Your task to perform on an android device: Empty the shopping cart on amazon. Image 0: 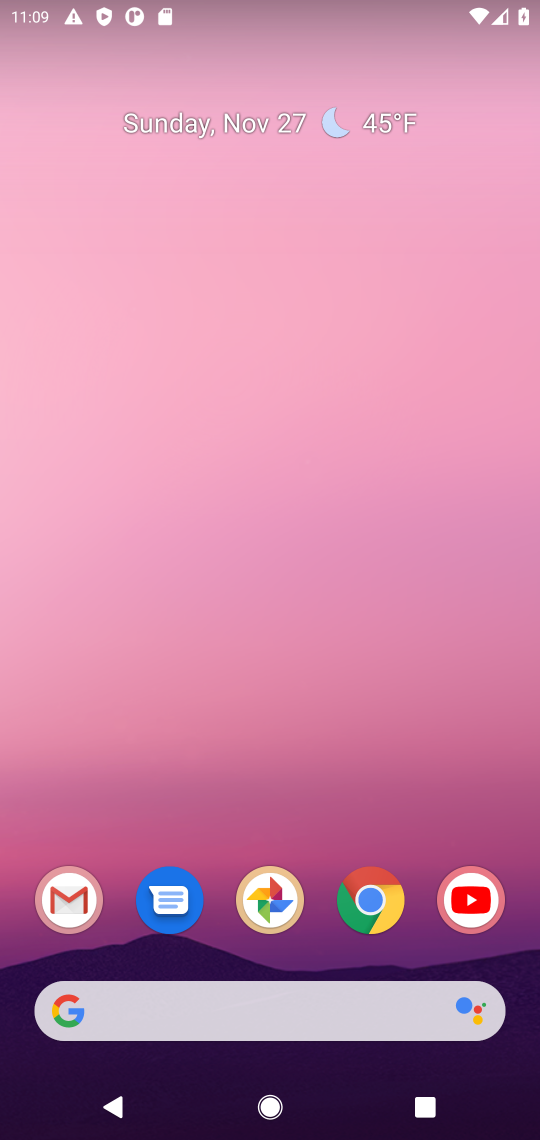
Step 0: click (391, 911)
Your task to perform on an android device: Empty the shopping cart on amazon. Image 1: 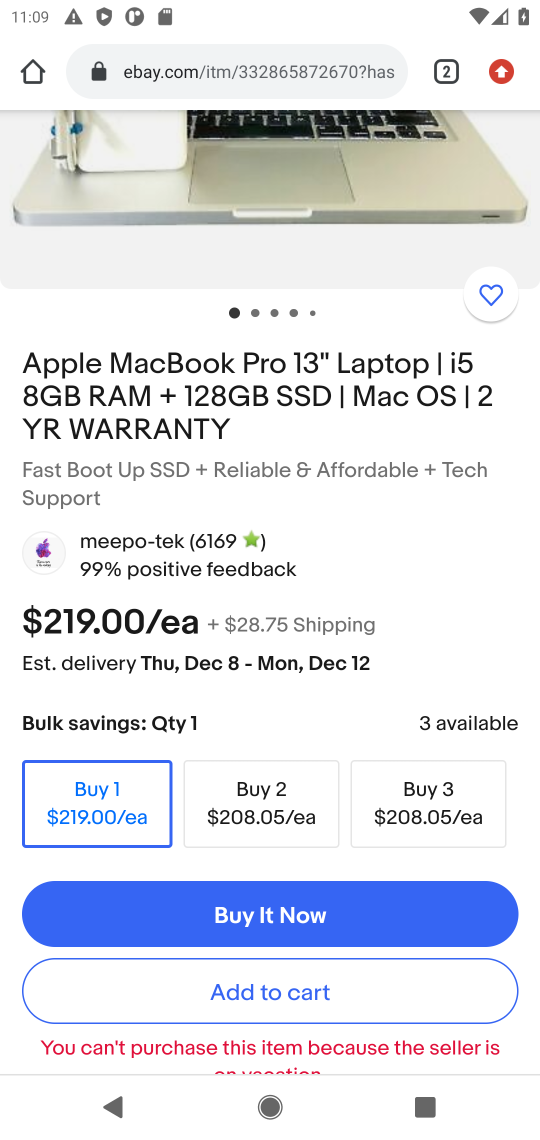
Step 1: click (199, 81)
Your task to perform on an android device: Empty the shopping cart on amazon. Image 2: 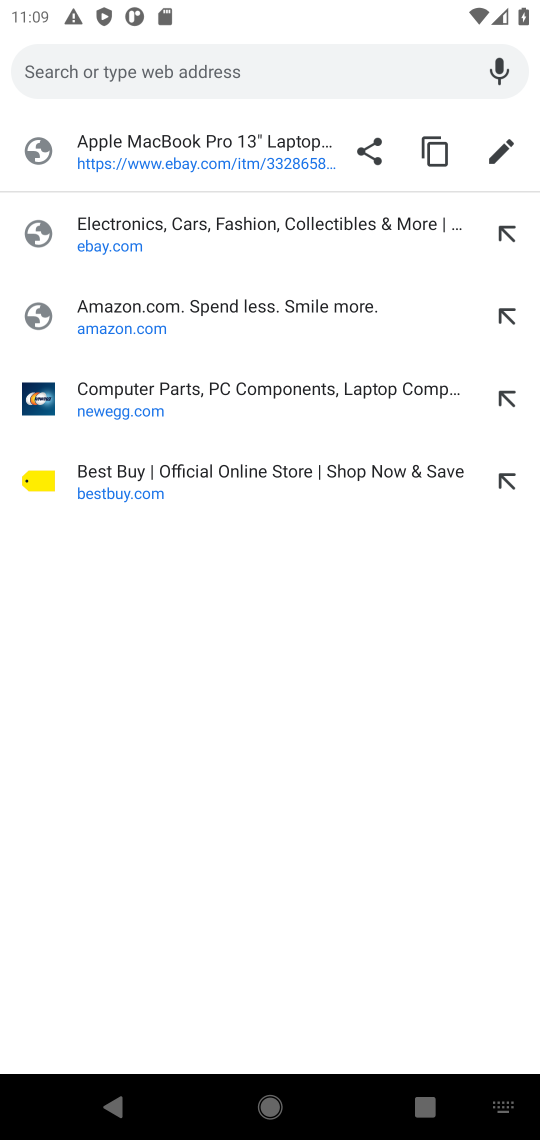
Step 2: click (109, 309)
Your task to perform on an android device: Empty the shopping cart on amazon. Image 3: 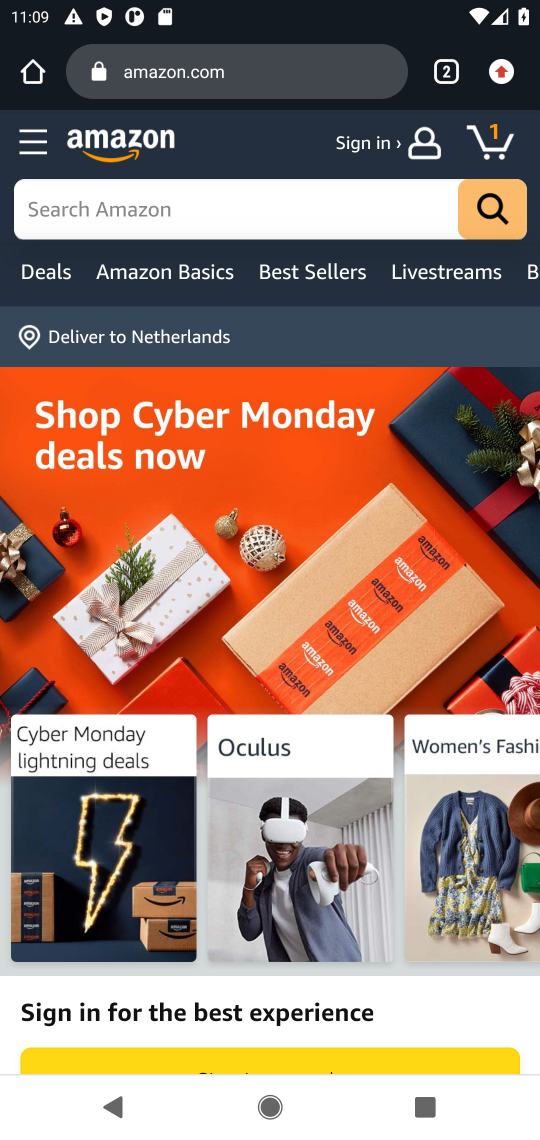
Step 3: click (486, 138)
Your task to perform on an android device: Empty the shopping cart on amazon. Image 4: 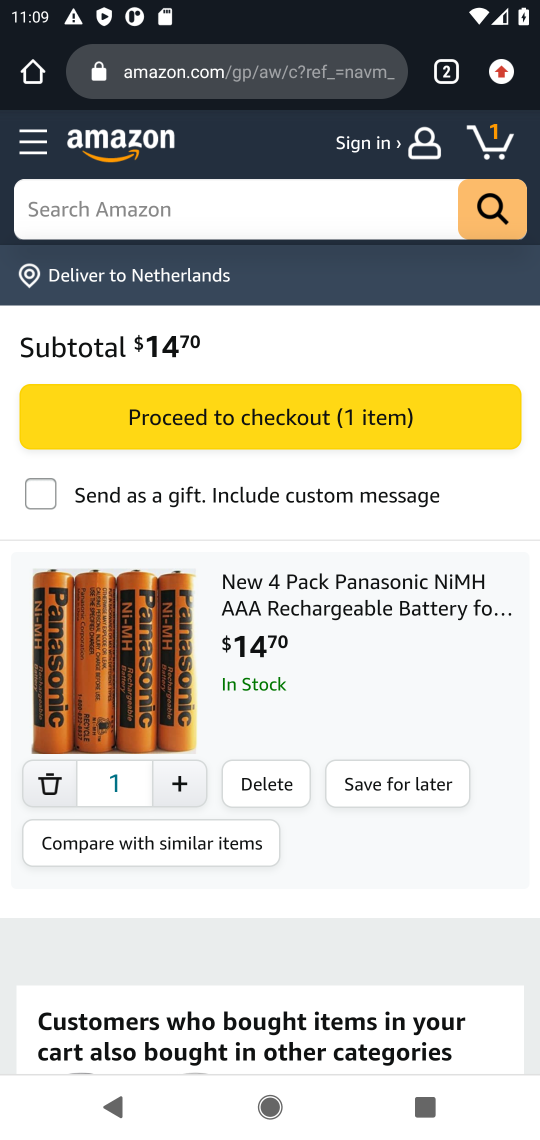
Step 4: click (260, 782)
Your task to perform on an android device: Empty the shopping cart on amazon. Image 5: 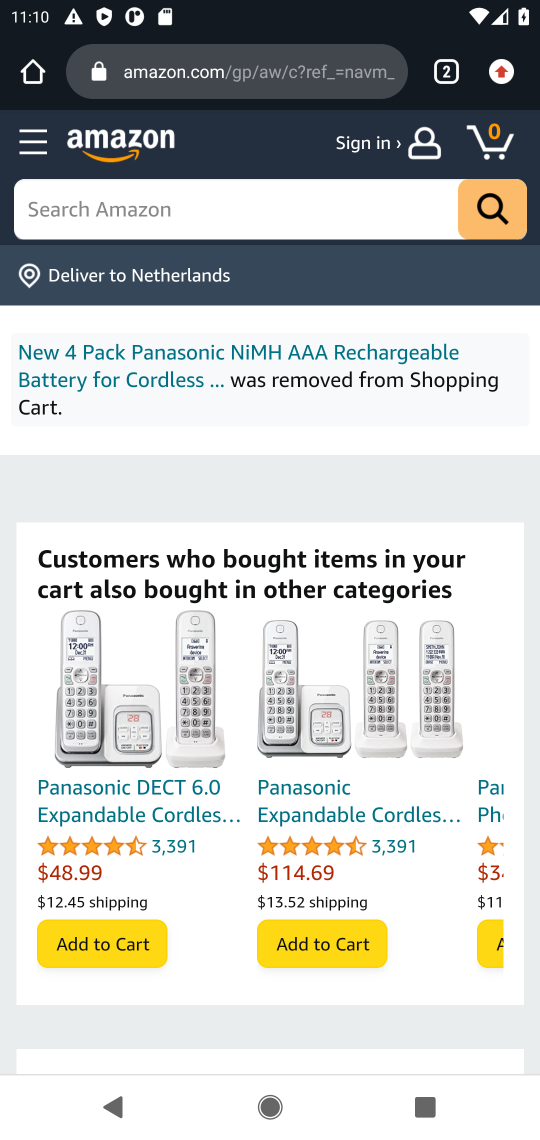
Step 5: task complete